Your task to perform on an android device: Go to Google maps Image 0: 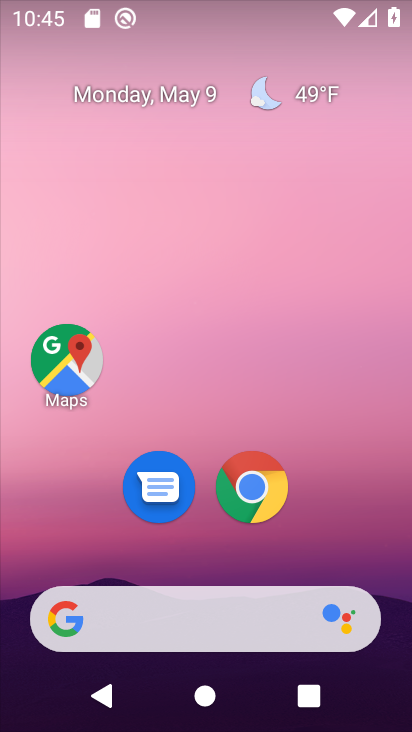
Step 0: click (63, 374)
Your task to perform on an android device: Go to Google maps Image 1: 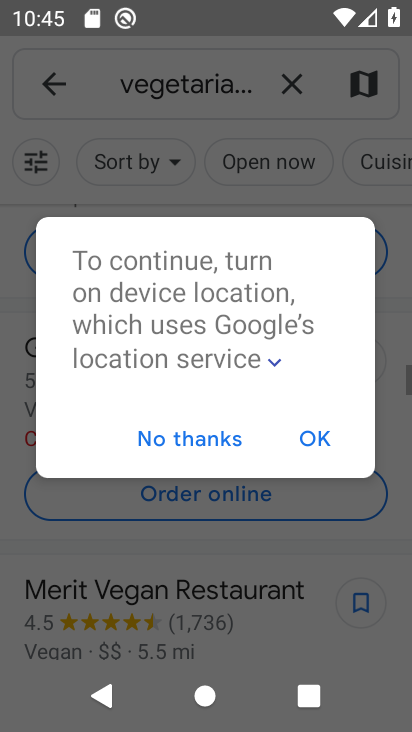
Step 1: task complete